Your task to perform on an android device: check battery use Image 0: 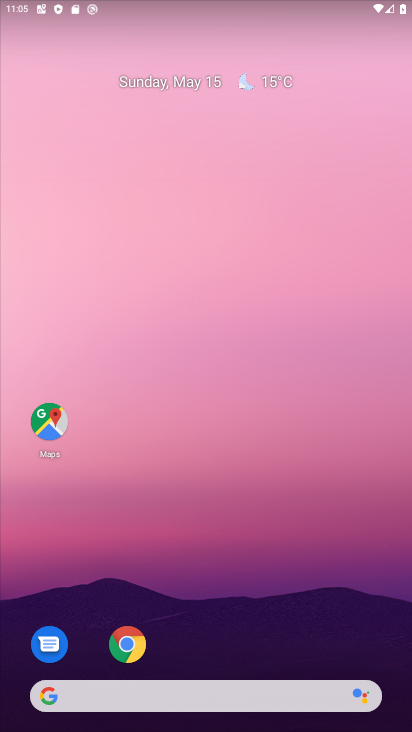
Step 0: drag from (299, 634) to (223, 46)
Your task to perform on an android device: check battery use Image 1: 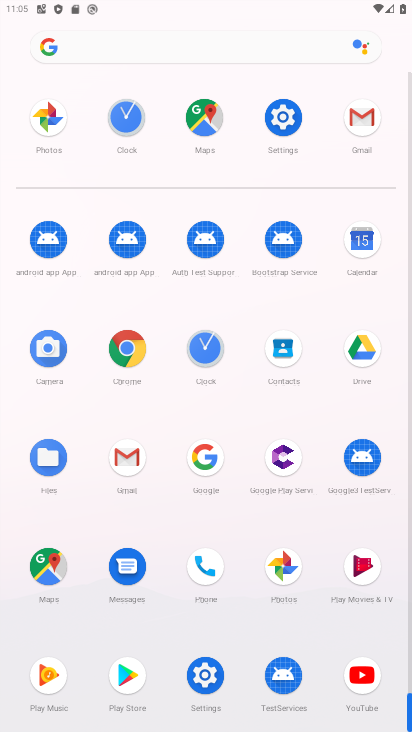
Step 1: click (205, 677)
Your task to perform on an android device: check battery use Image 2: 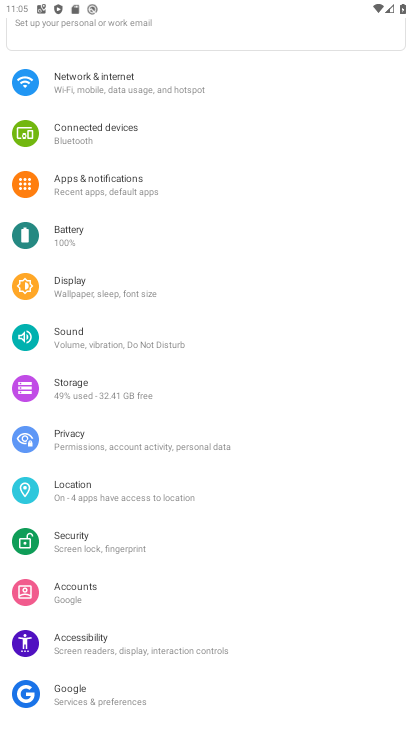
Step 2: click (81, 231)
Your task to perform on an android device: check battery use Image 3: 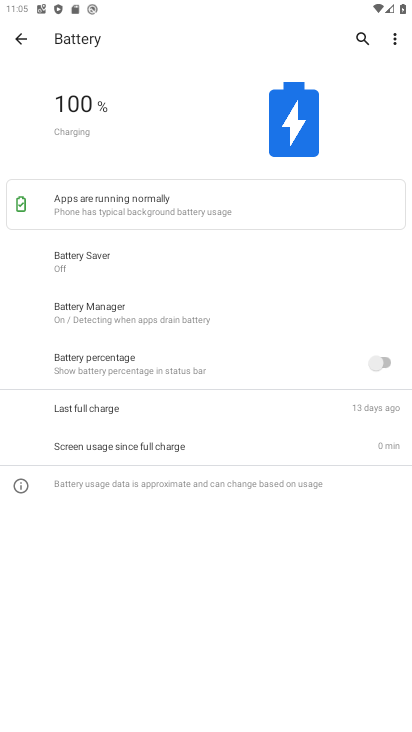
Step 3: click (404, 47)
Your task to perform on an android device: check battery use Image 4: 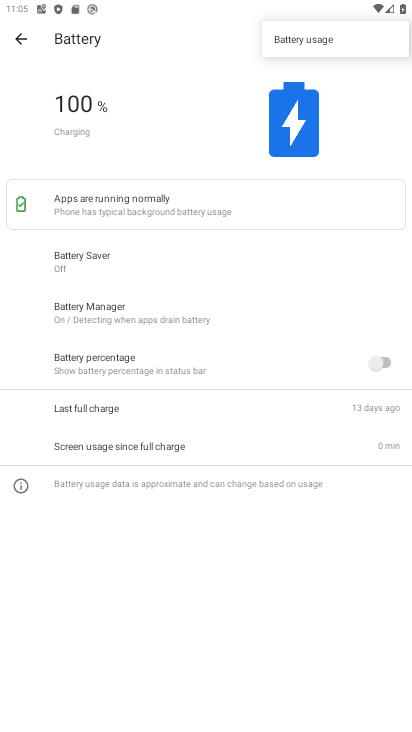
Step 4: click (288, 44)
Your task to perform on an android device: check battery use Image 5: 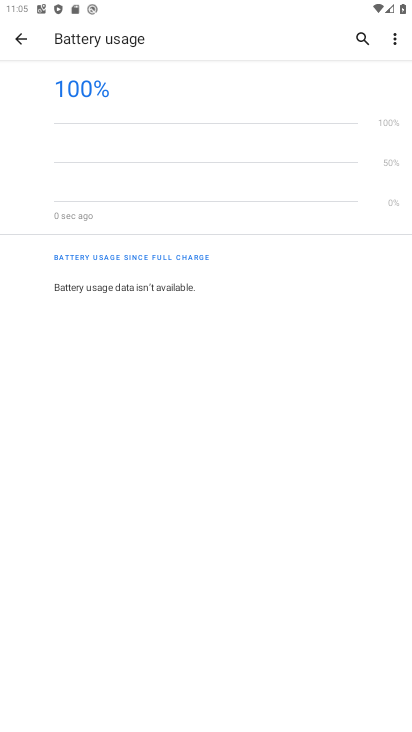
Step 5: task complete